Your task to perform on an android device: set the timer Image 0: 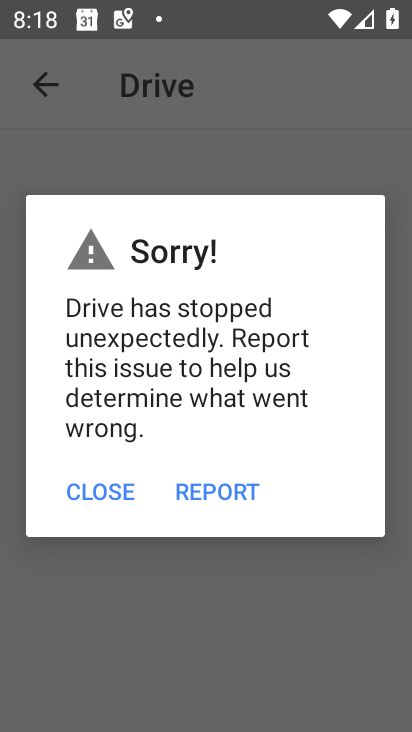
Step 0: press home button
Your task to perform on an android device: set the timer Image 1: 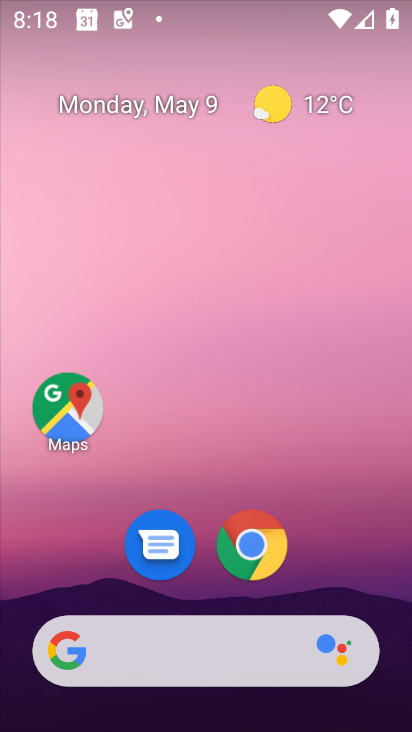
Step 1: drag from (208, 724) to (180, 196)
Your task to perform on an android device: set the timer Image 2: 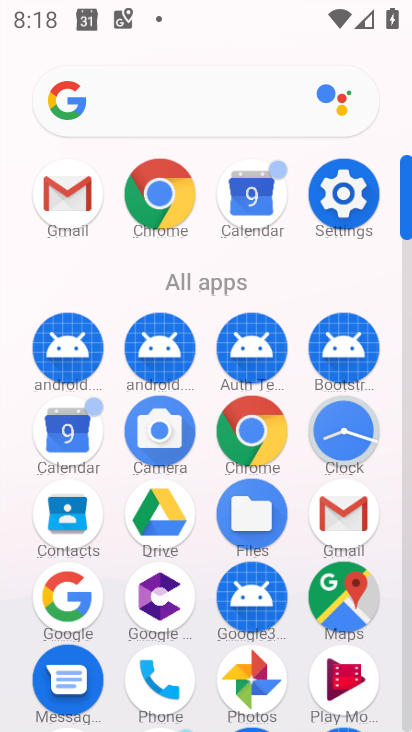
Step 2: click (339, 423)
Your task to perform on an android device: set the timer Image 3: 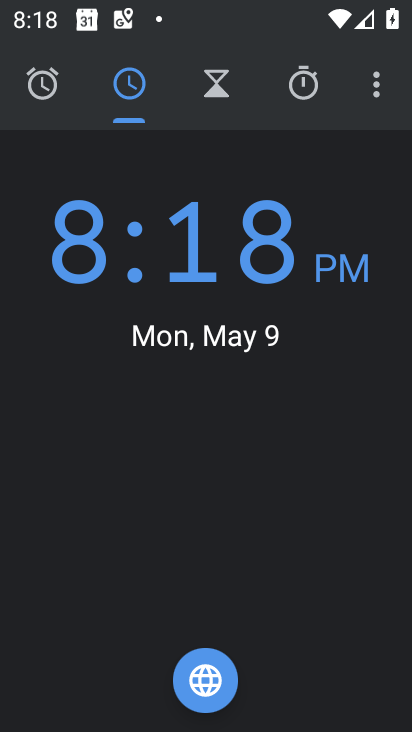
Step 3: click (216, 86)
Your task to perform on an android device: set the timer Image 4: 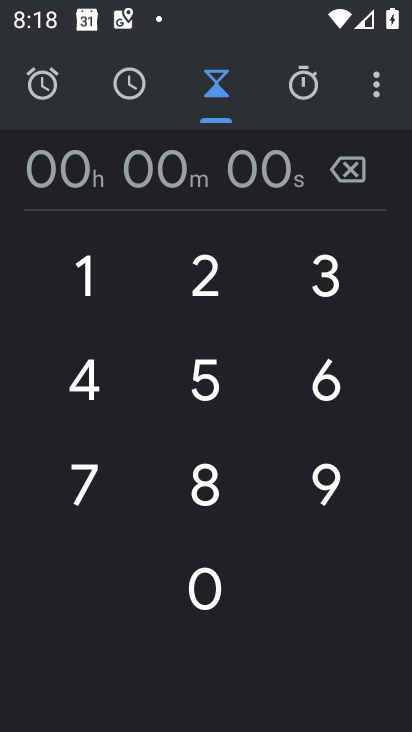
Step 4: click (212, 257)
Your task to perform on an android device: set the timer Image 5: 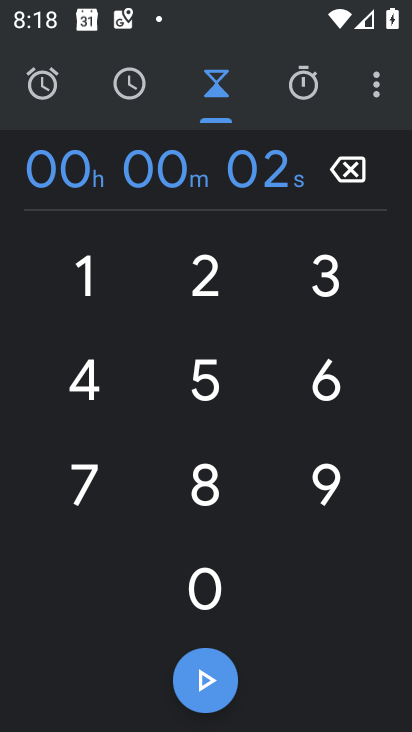
Step 5: click (75, 284)
Your task to perform on an android device: set the timer Image 6: 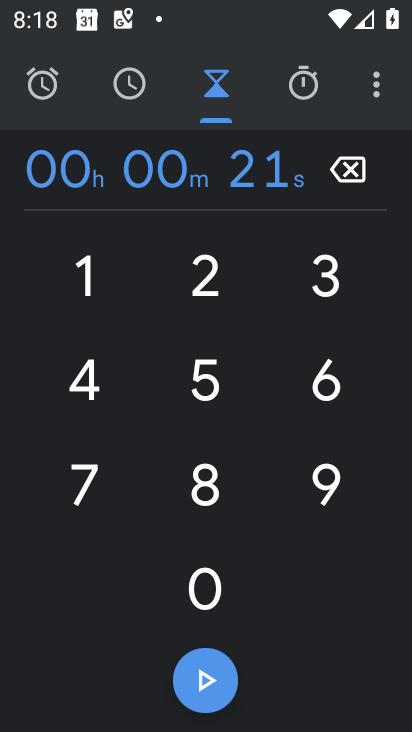
Step 6: click (208, 375)
Your task to perform on an android device: set the timer Image 7: 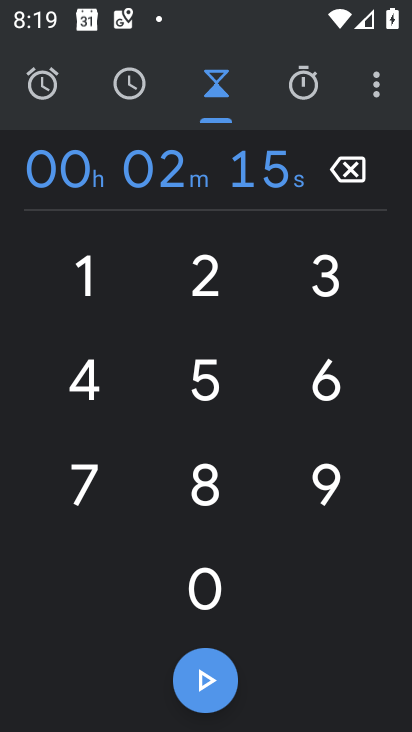
Step 7: click (213, 473)
Your task to perform on an android device: set the timer Image 8: 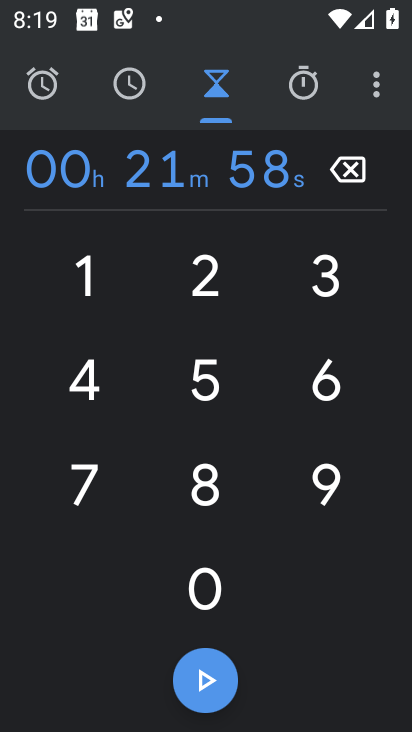
Step 8: click (102, 480)
Your task to perform on an android device: set the timer Image 9: 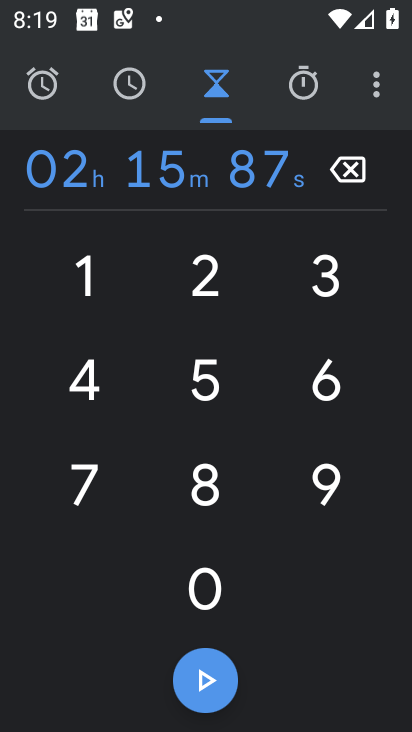
Step 9: click (196, 681)
Your task to perform on an android device: set the timer Image 10: 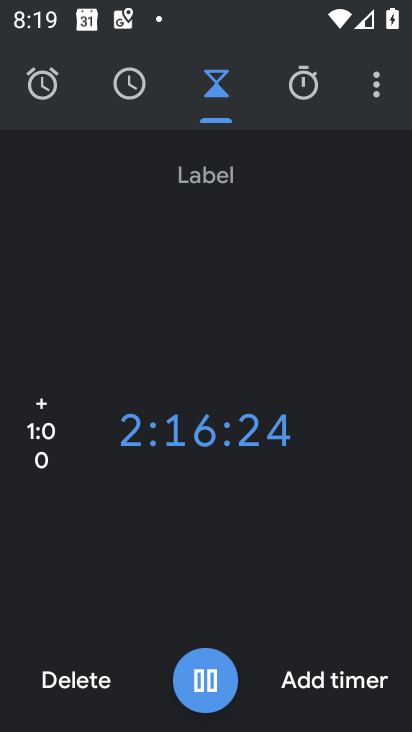
Step 10: task complete